Your task to perform on an android device: Search for flights from Mexico city to Boston Image 0: 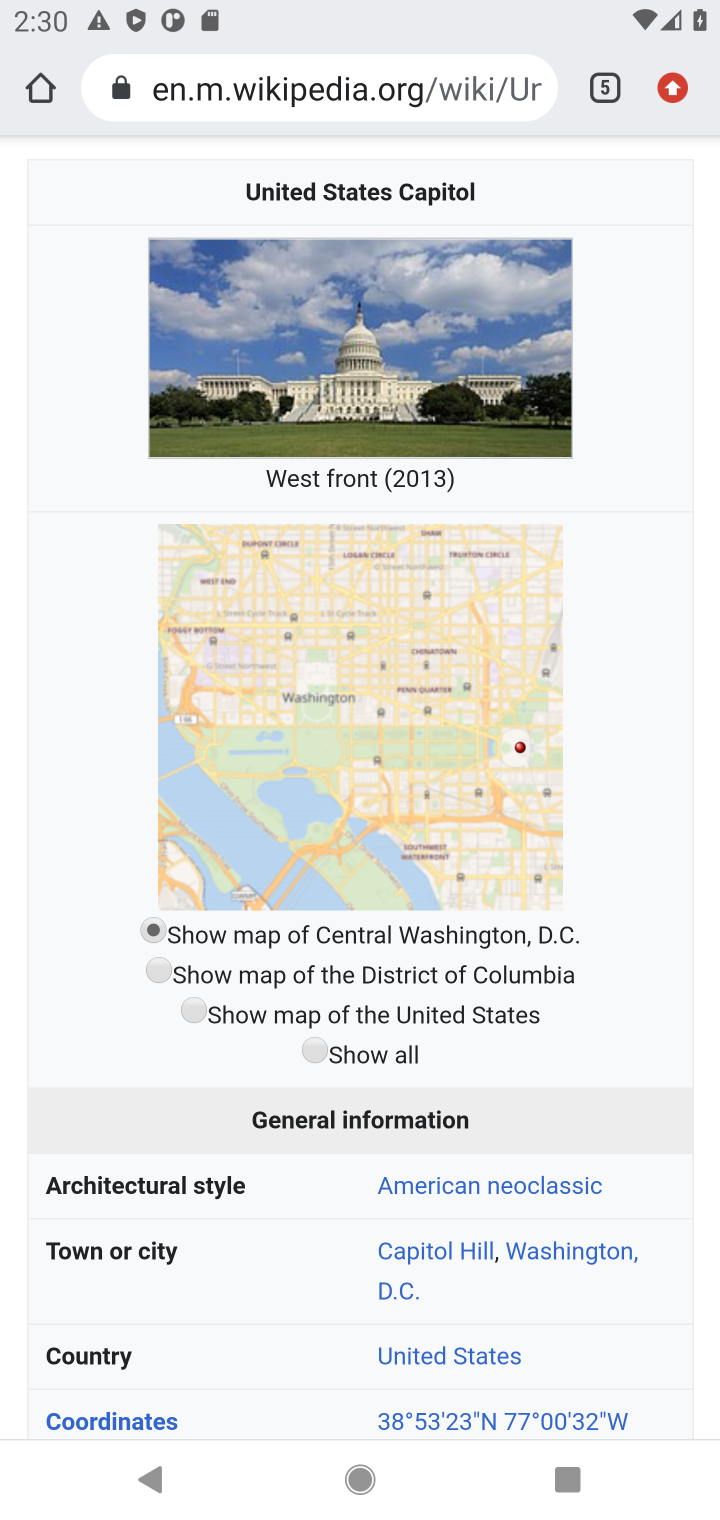
Step 0: press back button
Your task to perform on an android device: Search for flights from Mexico city to Boston Image 1: 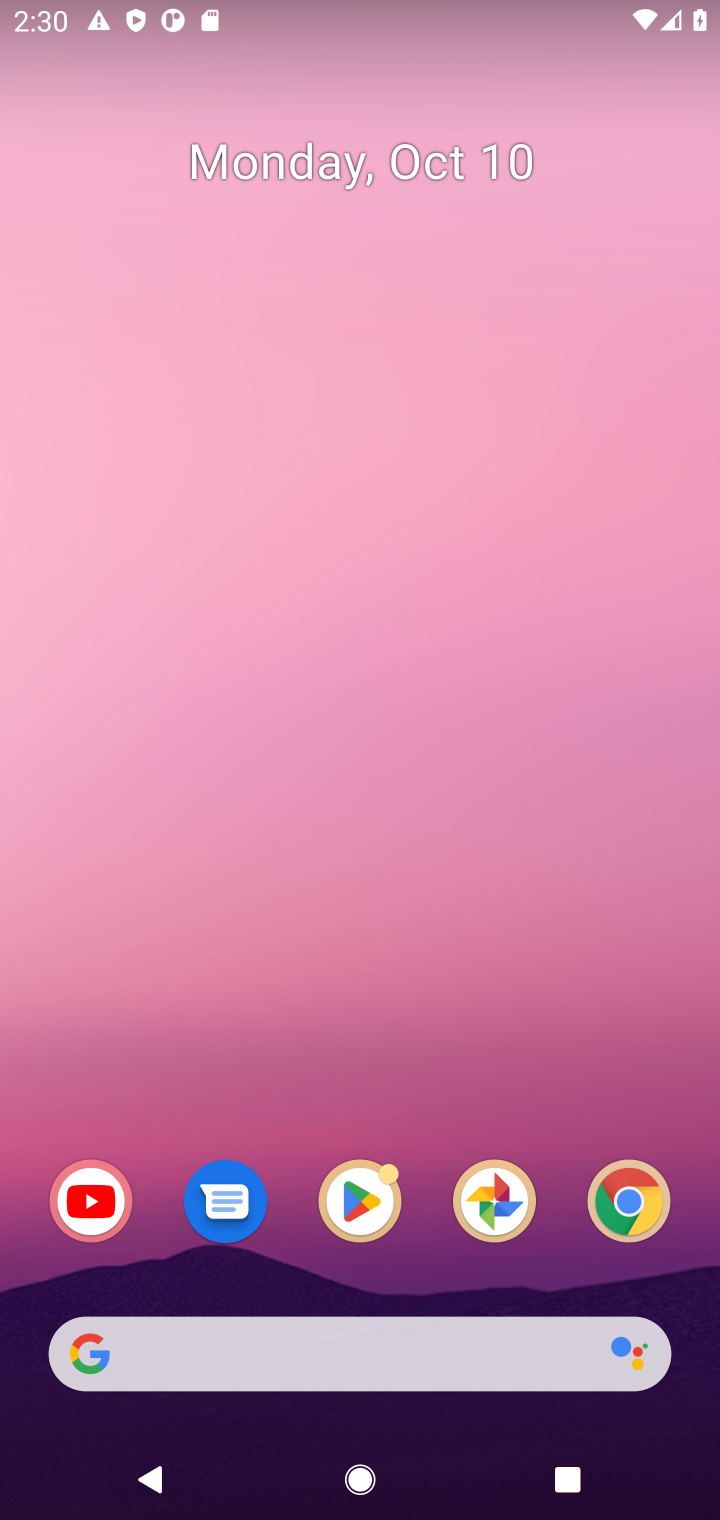
Step 1: click (388, 1346)
Your task to perform on an android device: Search for flights from Mexico city to Boston Image 2: 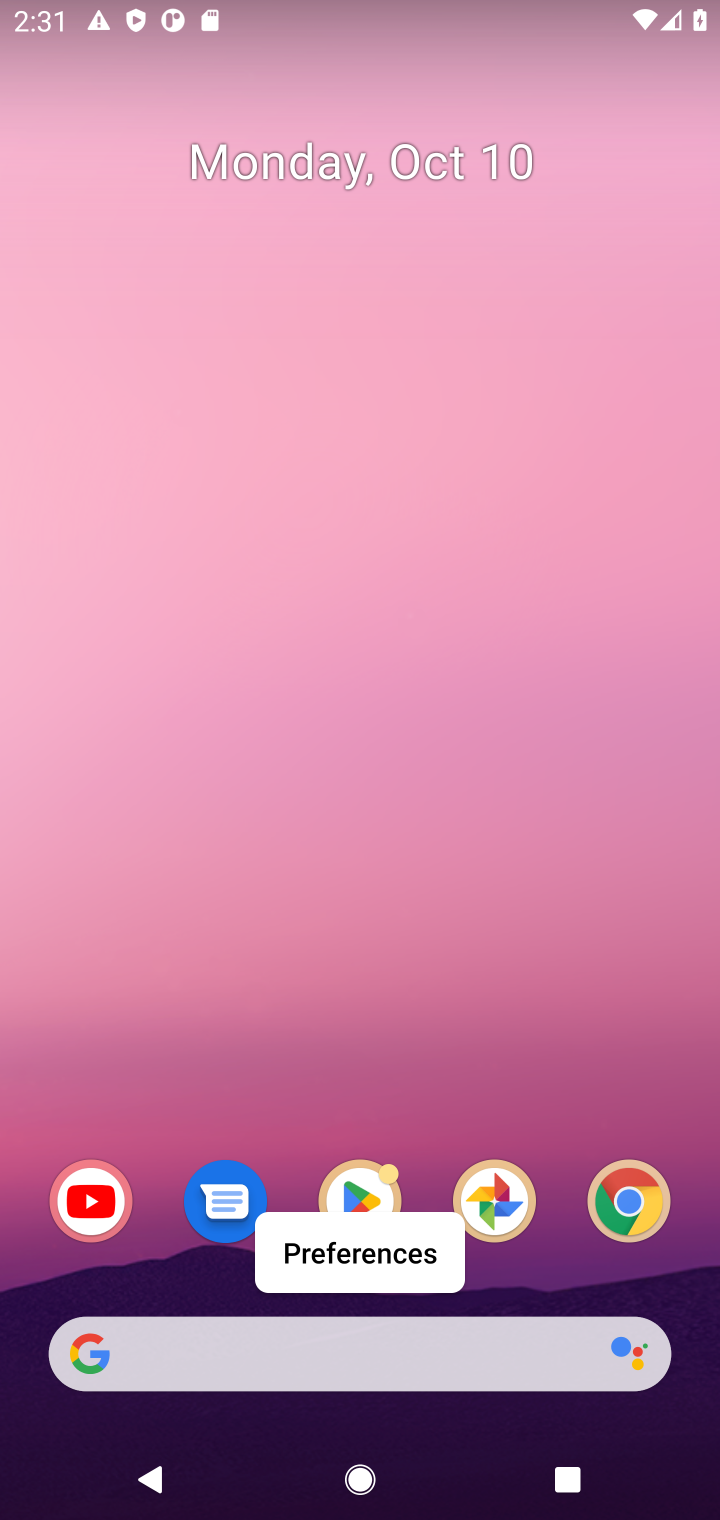
Step 2: click (293, 1352)
Your task to perform on an android device: Search for flights from Mexico city to Boston Image 3: 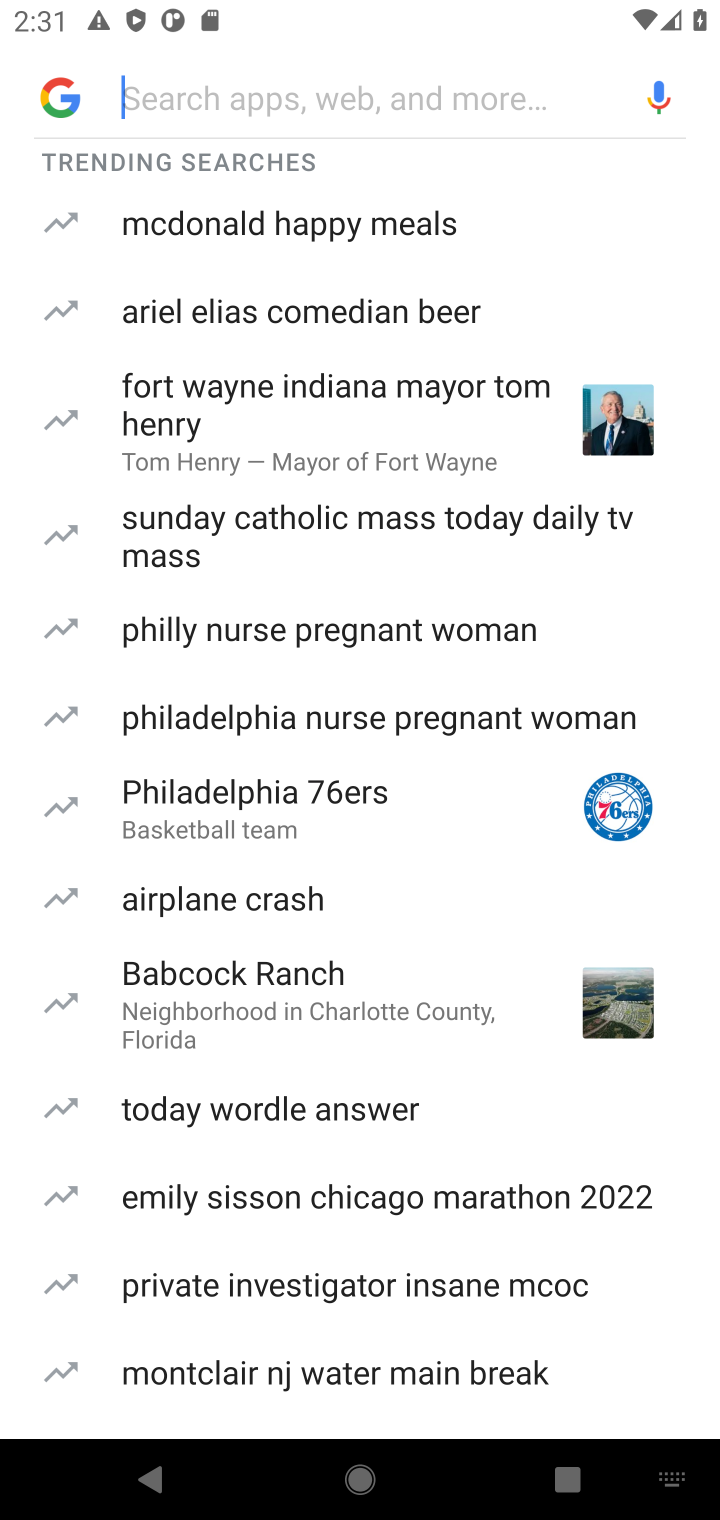
Step 3: type "flights from Mexico city to Boston"
Your task to perform on an android device: Search for flights from Mexico city to Boston Image 4: 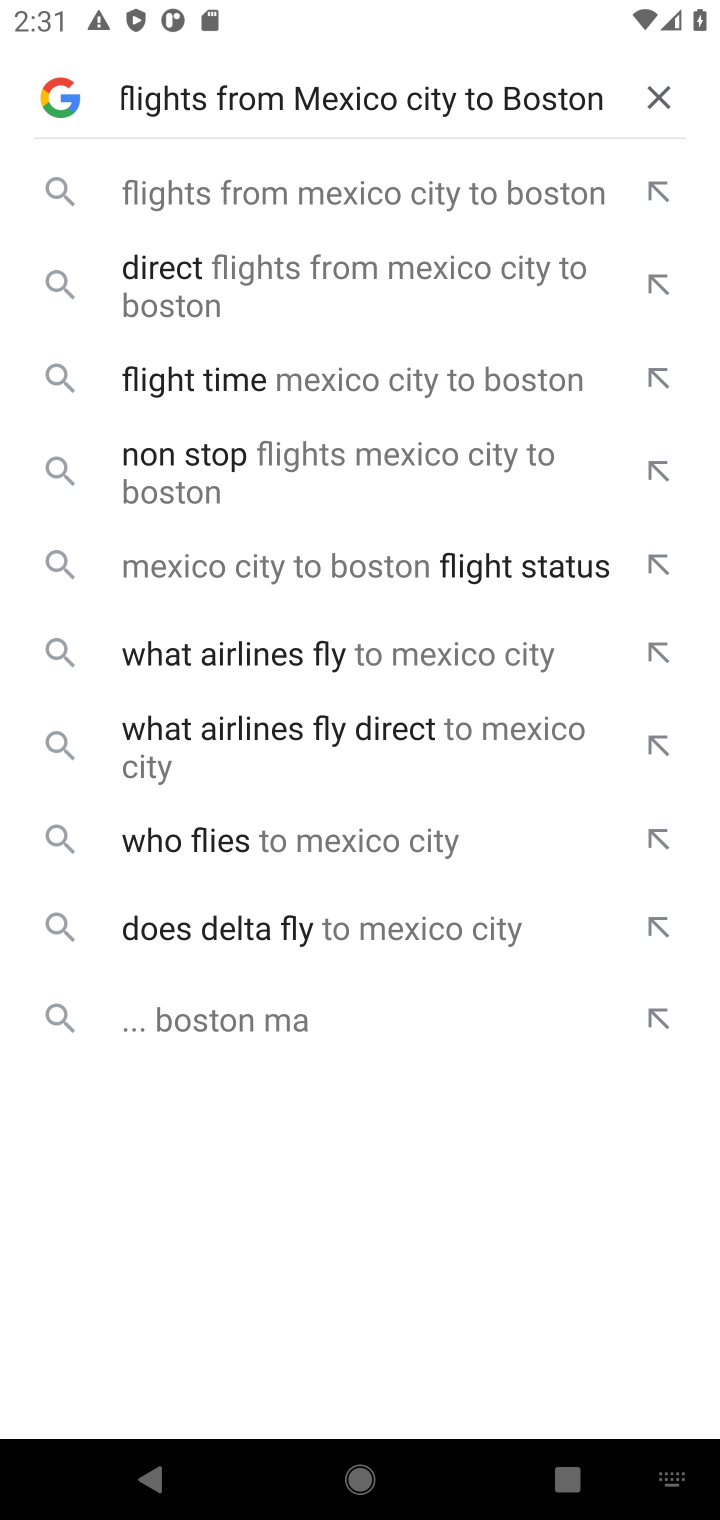
Step 4: click (238, 200)
Your task to perform on an android device: Search for flights from Mexico city to Boston Image 5: 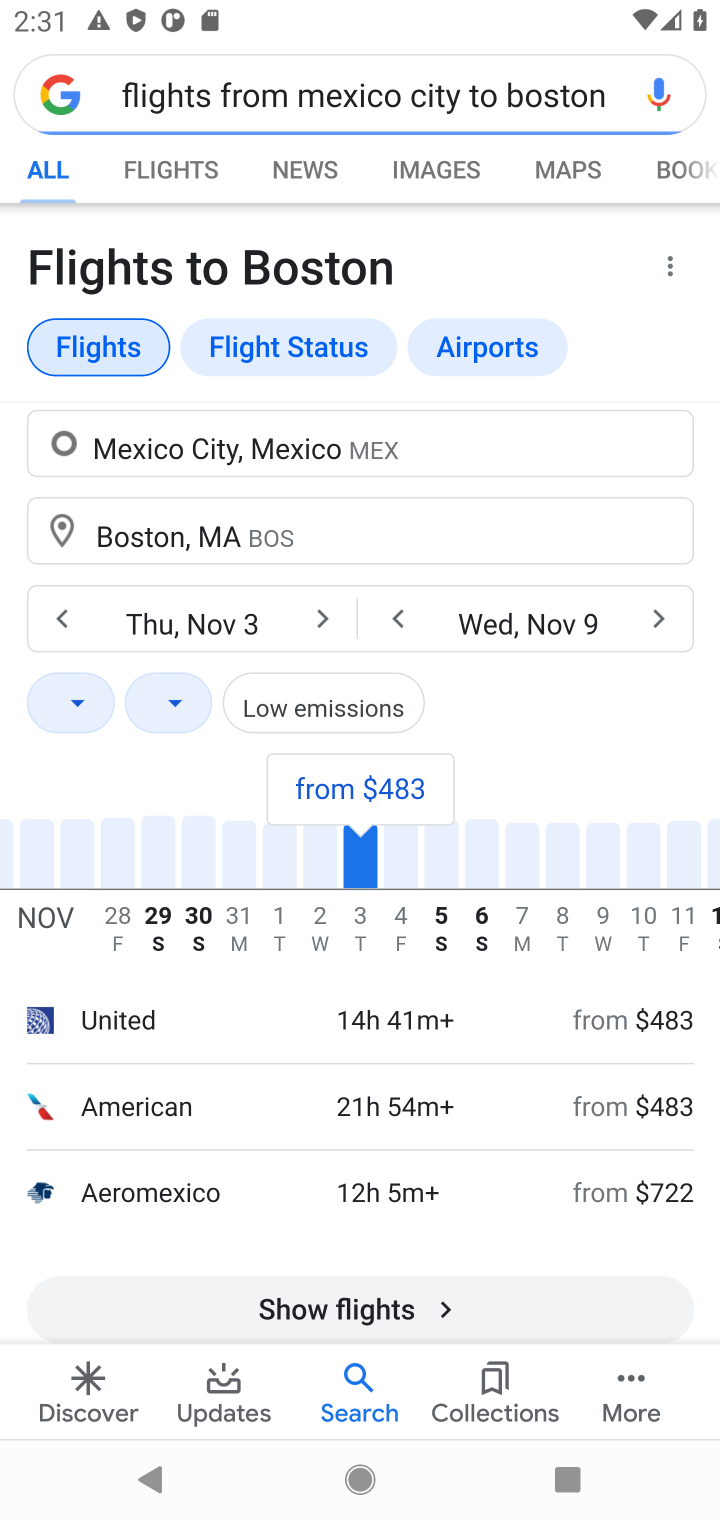
Step 5: press enter
Your task to perform on an android device: Search for flights from Mexico city to Boston Image 6: 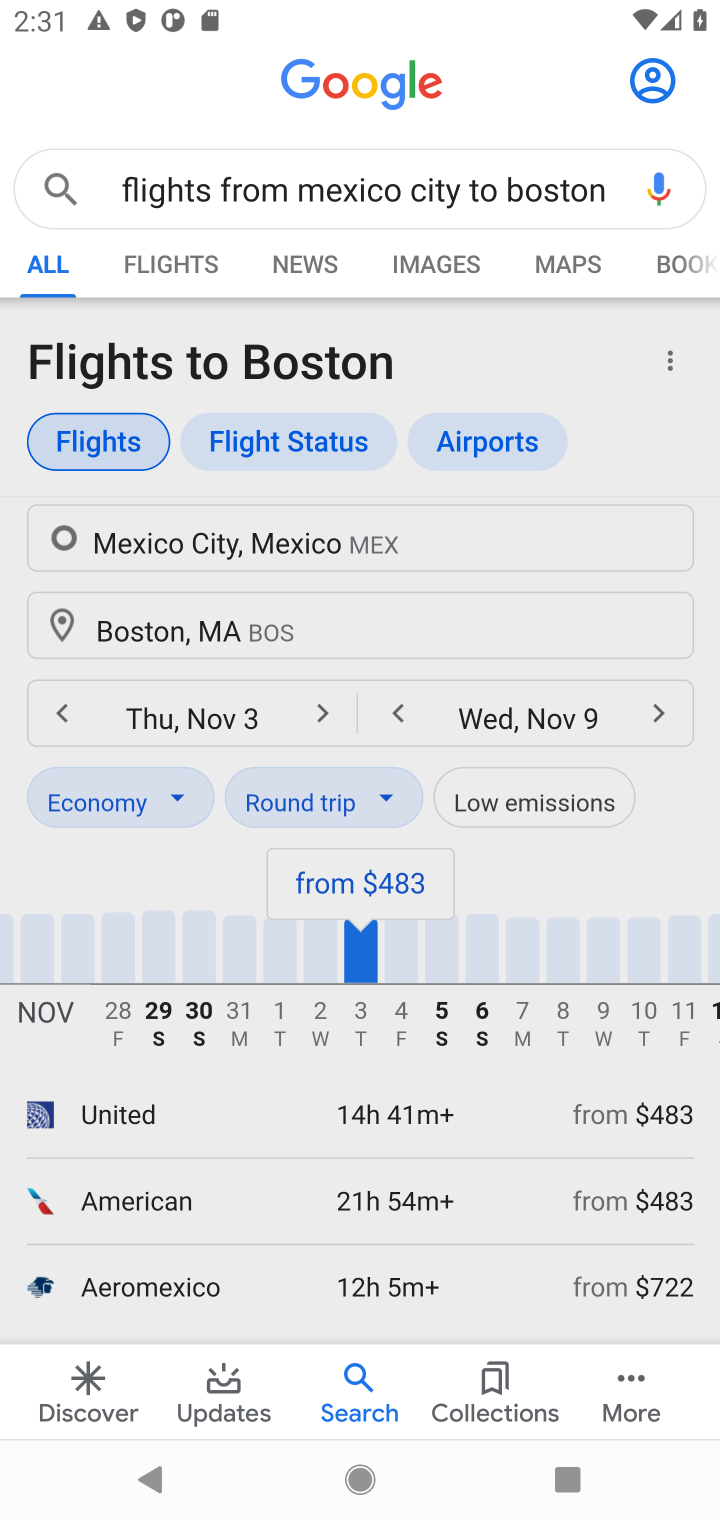
Step 6: drag from (265, 1213) to (275, 1029)
Your task to perform on an android device: Search for flights from Mexico city to Boston Image 7: 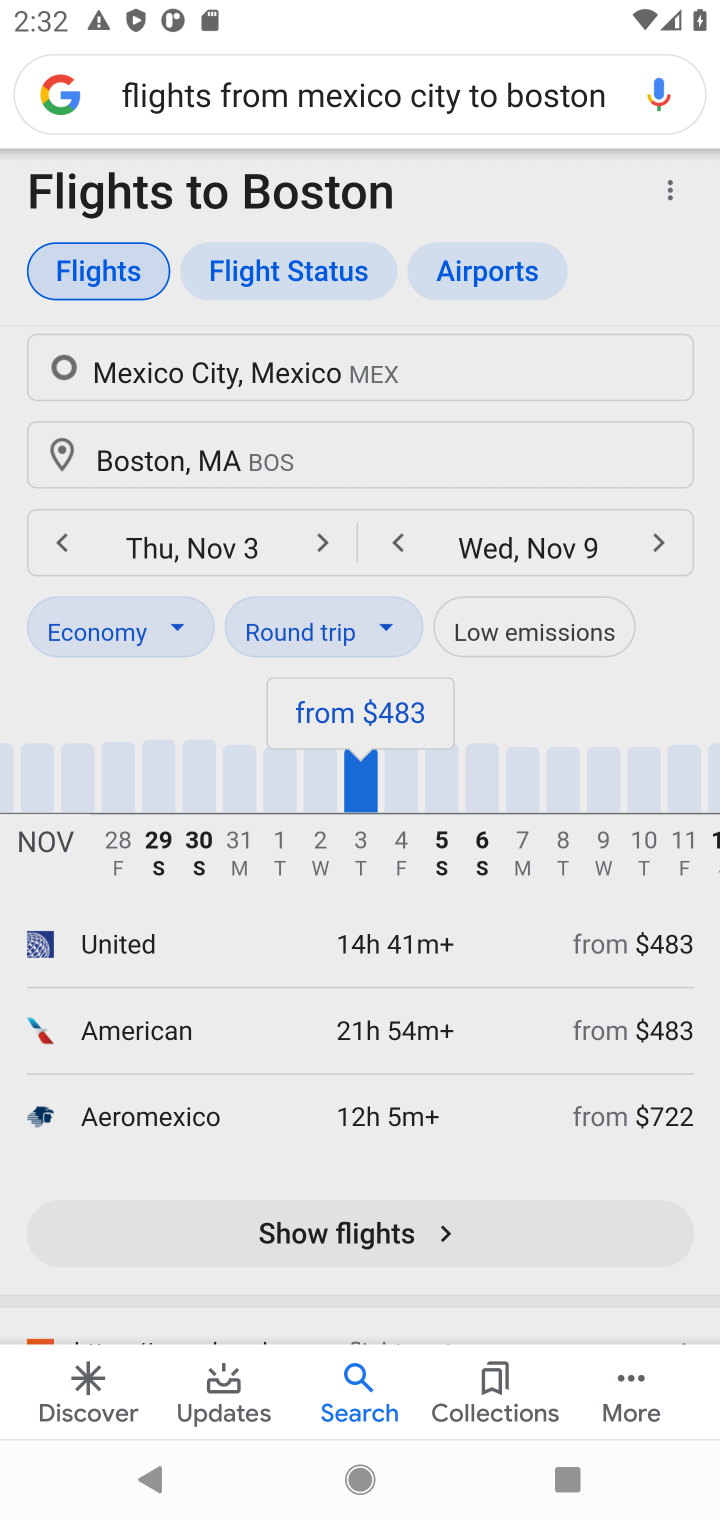
Step 7: click (310, 1222)
Your task to perform on an android device: Search for flights from Mexico city to Boston Image 8: 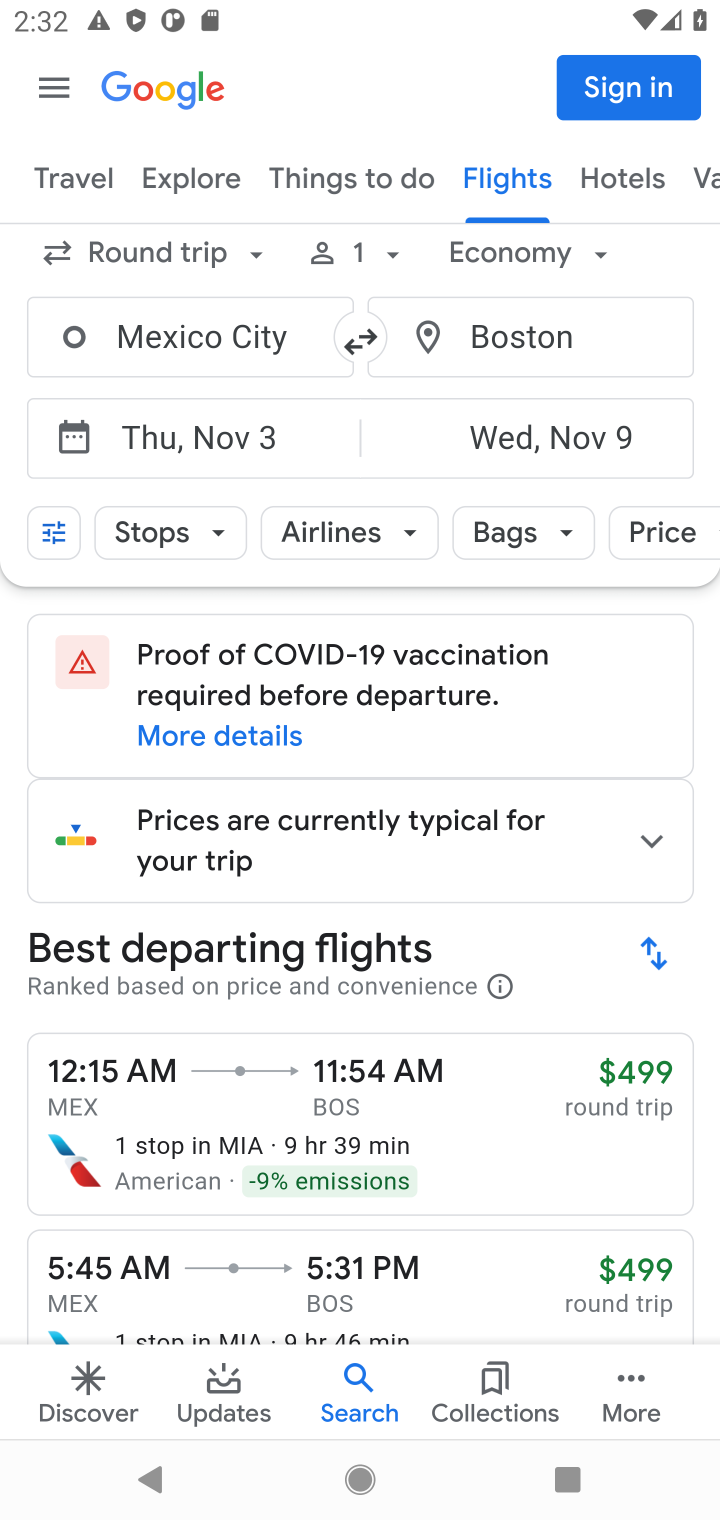
Step 8: task complete